Your task to perform on an android device: change the clock display to show seconds Image 0: 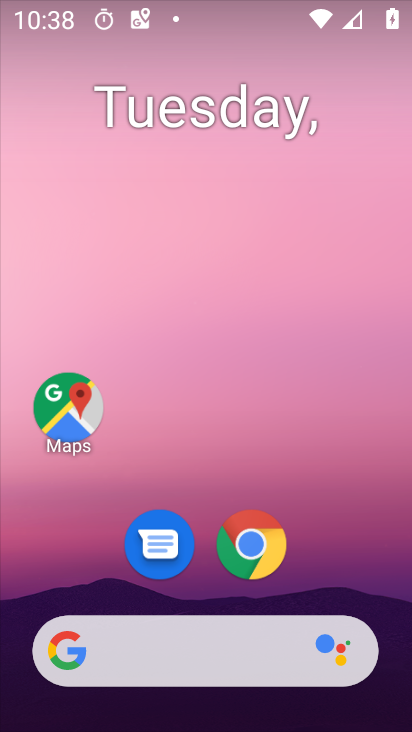
Step 0: drag from (360, 593) to (320, 173)
Your task to perform on an android device: change the clock display to show seconds Image 1: 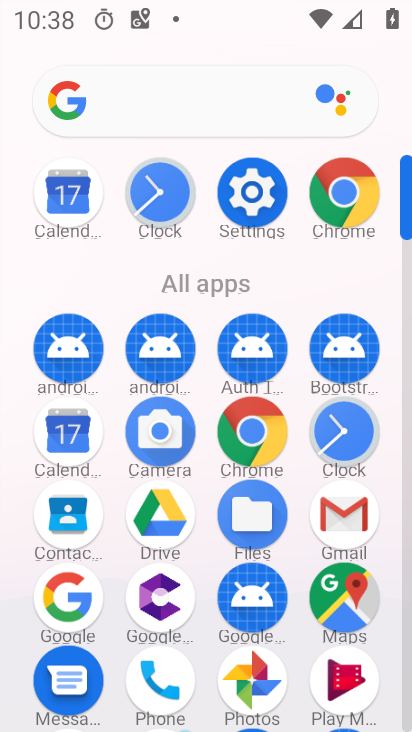
Step 1: click (364, 432)
Your task to perform on an android device: change the clock display to show seconds Image 2: 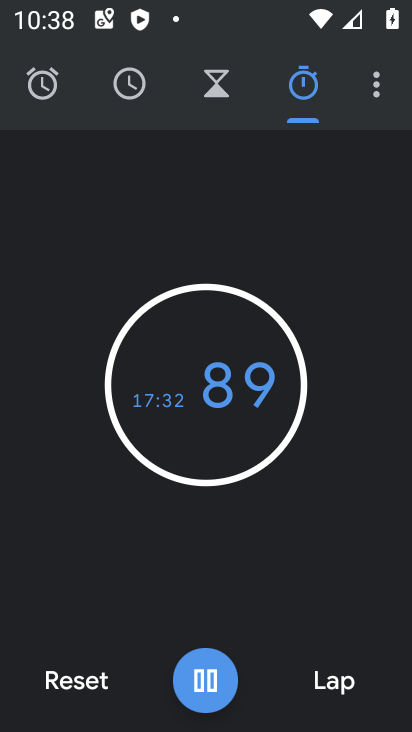
Step 2: click (379, 95)
Your task to perform on an android device: change the clock display to show seconds Image 3: 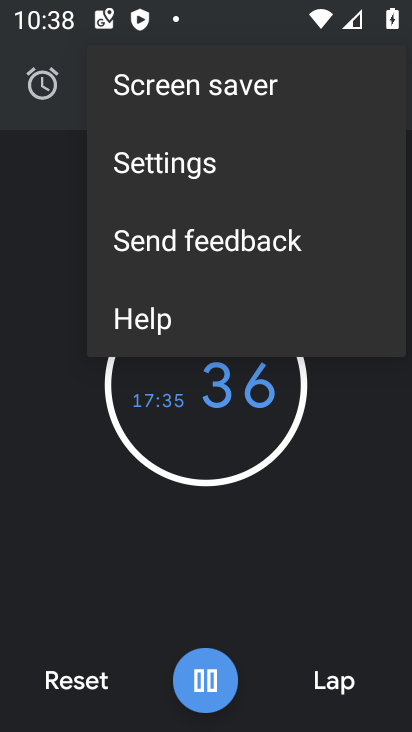
Step 3: click (349, 170)
Your task to perform on an android device: change the clock display to show seconds Image 4: 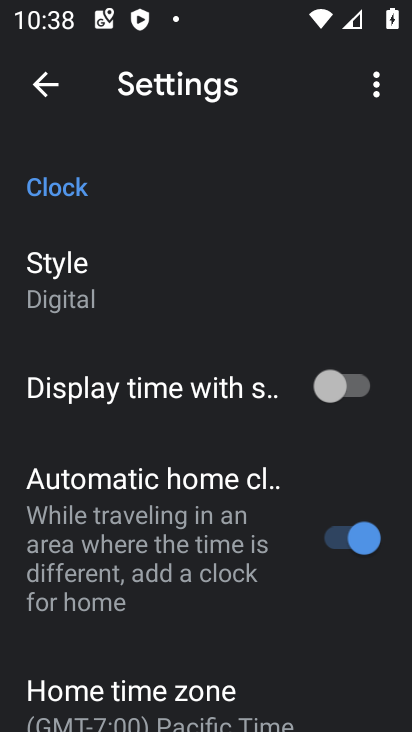
Step 4: click (350, 398)
Your task to perform on an android device: change the clock display to show seconds Image 5: 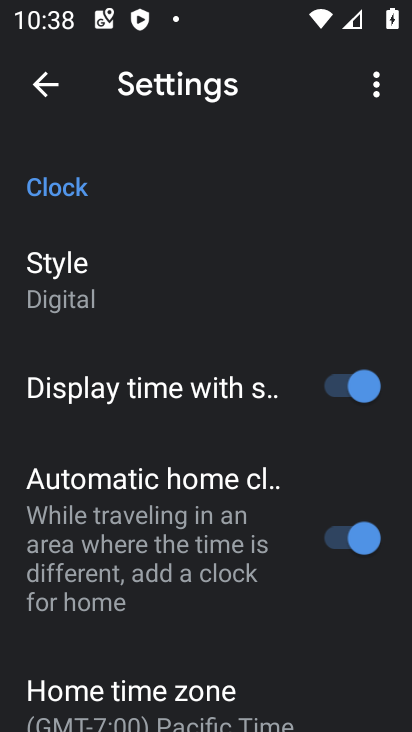
Step 5: task complete